Your task to perform on an android device: turn off javascript in the chrome app Image 0: 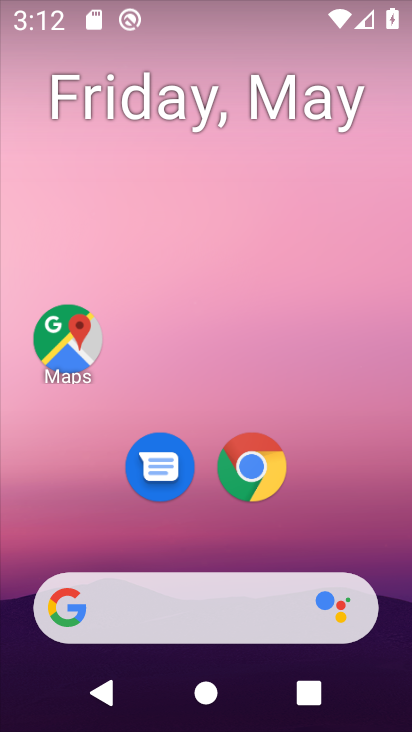
Step 0: click (257, 472)
Your task to perform on an android device: turn off javascript in the chrome app Image 1: 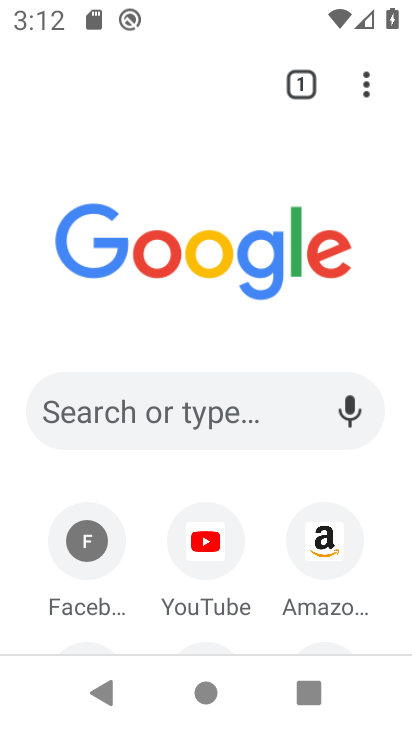
Step 1: click (368, 86)
Your task to perform on an android device: turn off javascript in the chrome app Image 2: 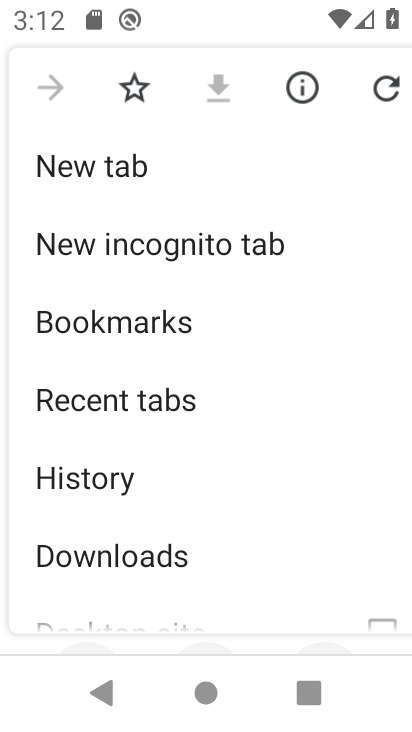
Step 2: drag from (259, 560) to (236, 187)
Your task to perform on an android device: turn off javascript in the chrome app Image 3: 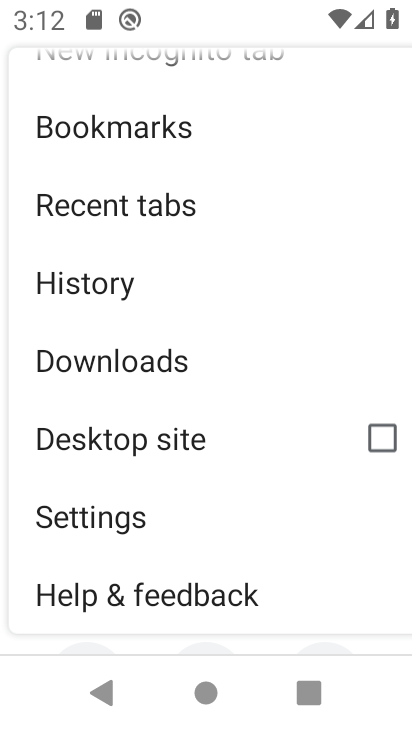
Step 3: click (144, 522)
Your task to perform on an android device: turn off javascript in the chrome app Image 4: 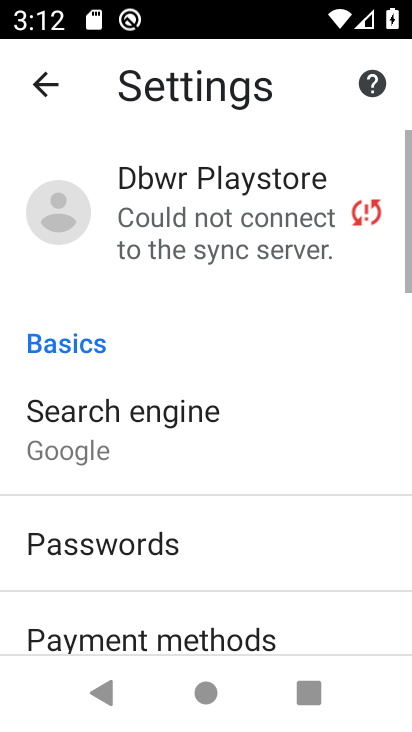
Step 4: drag from (264, 592) to (192, 120)
Your task to perform on an android device: turn off javascript in the chrome app Image 5: 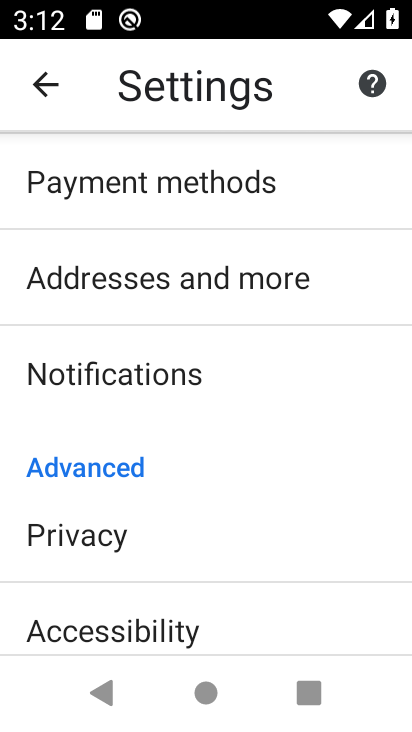
Step 5: drag from (201, 474) to (184, 153)
Your task to perform on an android device: turn off javascript in the chrome app Image 6: 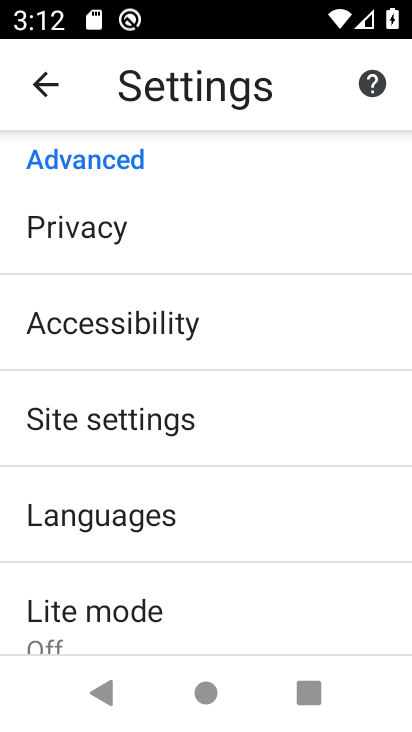
Step 6: click (164, 415)
Your task to perform on an android device: turn off javascript in the chrome app Image 7: 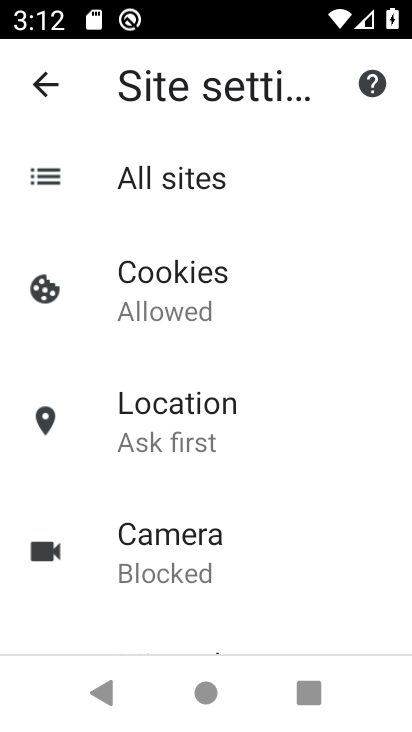
Step 7: drag from (282, 509) to (249, 184)
Your task to perform on an android device: turn off javascript in the chrome app Image 8: 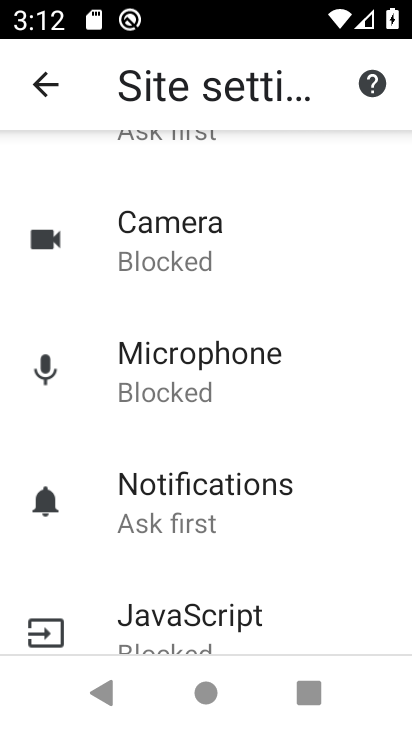
Step 8: click (204, 619)
Your task to perform on an android device: turn off javascript in the chrome app Image 9: 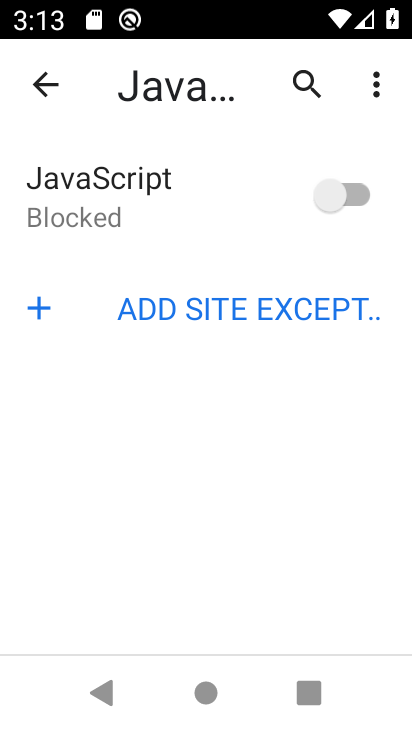
Step 9: task complete